Your task to perform on an android device: turn on priority inbox in the gmail app Image 0: 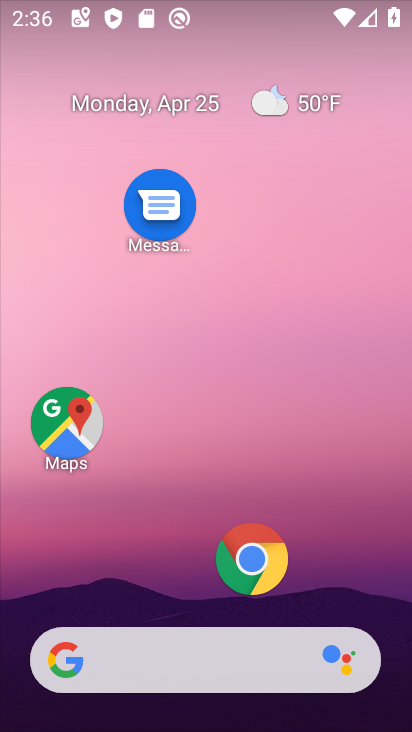
Step 0: drag from (182, 603) to (323, 21)
Your task to perform on an android device: turn on priority inbox in the gmail app Image 1: 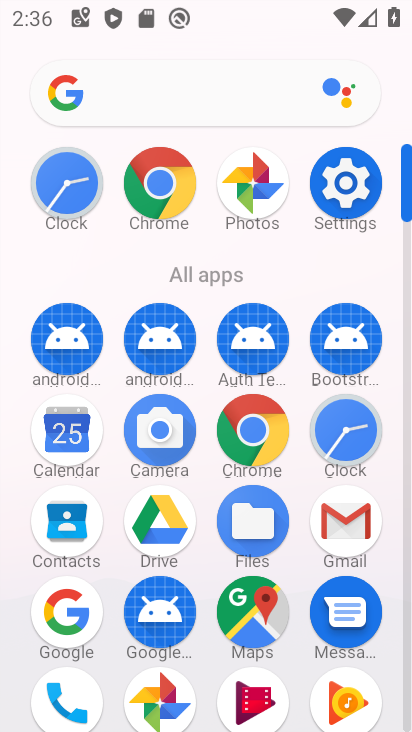
Step 1: click (342, 519)
Your task to perform on an android device: turn on priority inbox in the gmail app Image 2: 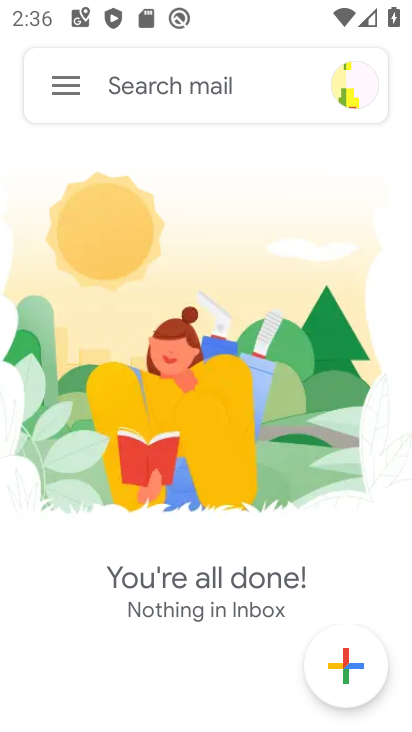
Step 2: click (71, 94)
Your task to perform on an android device: turn on priority inbox in the gmail app Image 3: 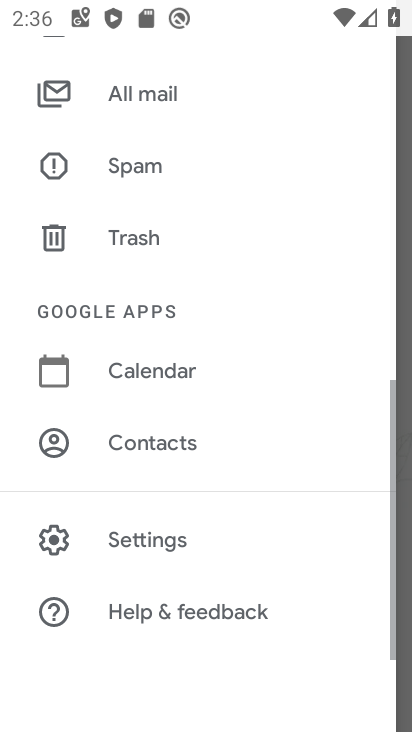
Step 3: click (147, 540)
Your task to perform on an android device: turn on priority inbox in the gmail app Image 4: 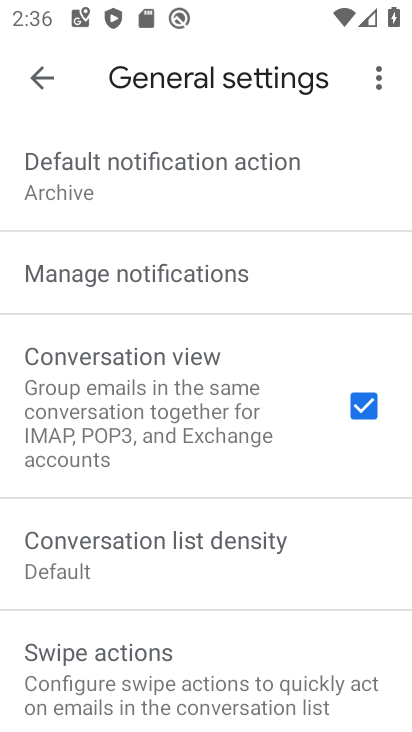
Step 4: click (39, 75)
Your task to perform on an android device: turn on priority inbox in the gmail app Image 5: 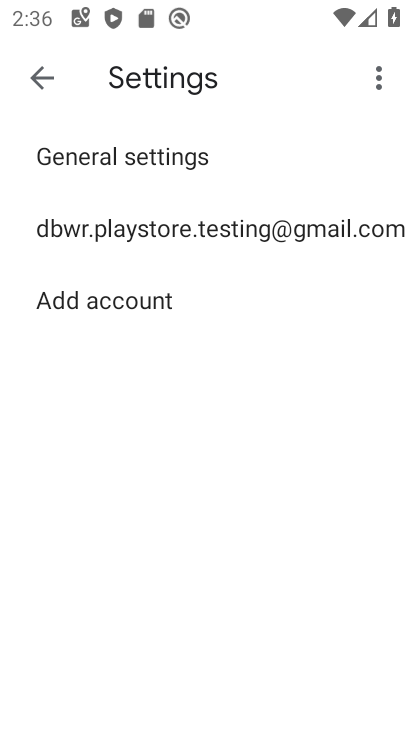
Step 5: click (199, 245)
Your task to perform on an android device: turn on priority inbox in the gmail app Image 6: 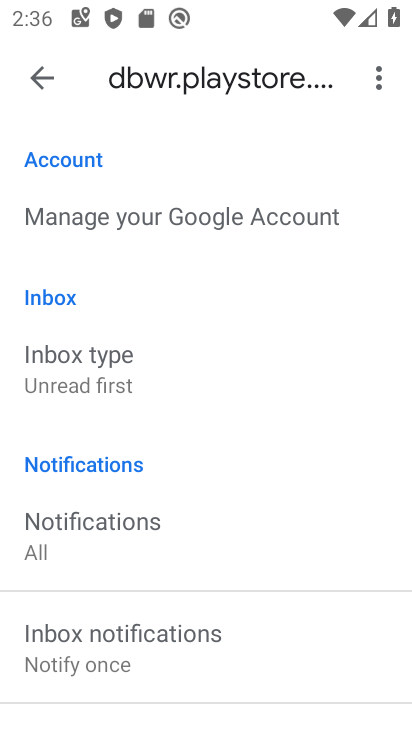
Step 6: click (126, 393)
Your task to perform on an android device: turn on priority inbox in the gmail app Image 7: 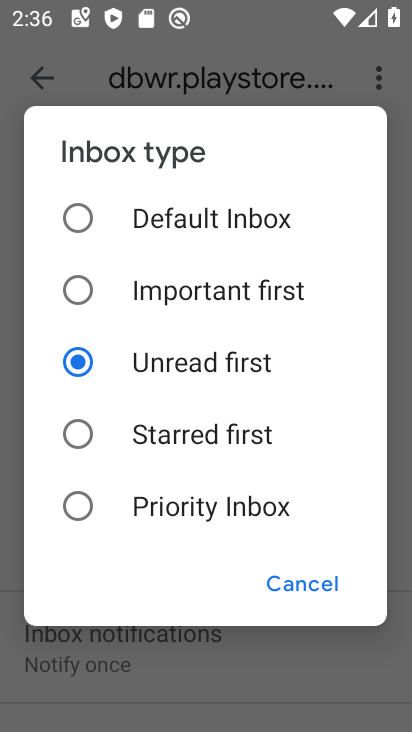
Step 7: click (90, 504)
Your task to perform on an android device: turn on priority inbox in the gmail app Image 8: 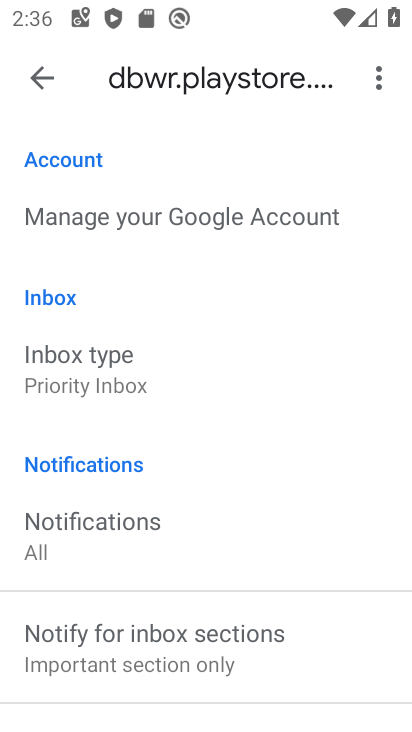
Step 8: task complete